Your task to perform on an android device: Find coffee shops on Maps Image 0: 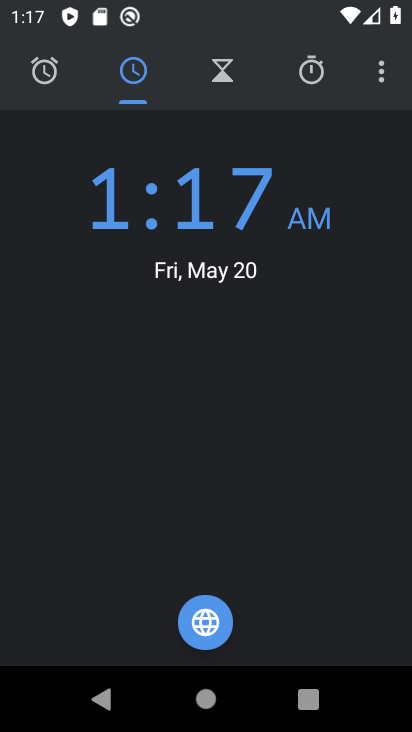
Step 0: press home button
Your task to perform on an android device: Find coffee shops on Maps Image 1: 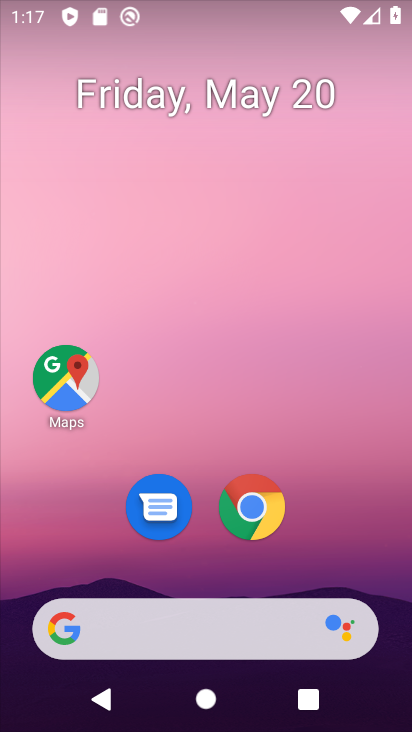
Step 1: drag from (231, 723) to (235, 108)
Your task to perform on an android device: Find coffee shops on Maps Image 2: 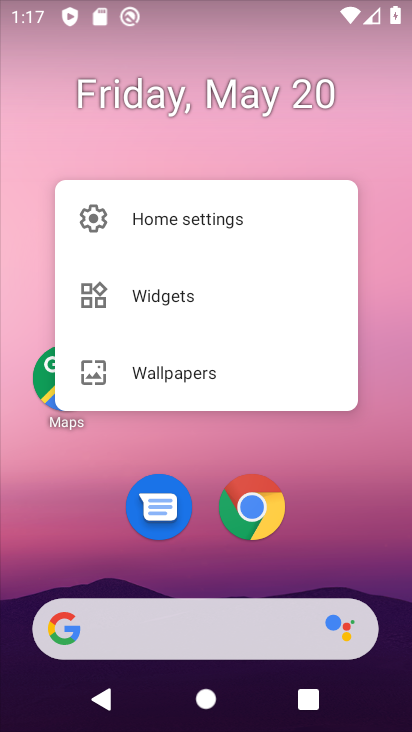
Step 2: click (189, 433)
Your task to perform on an android device: Find coffee shops on Maps Image 3: 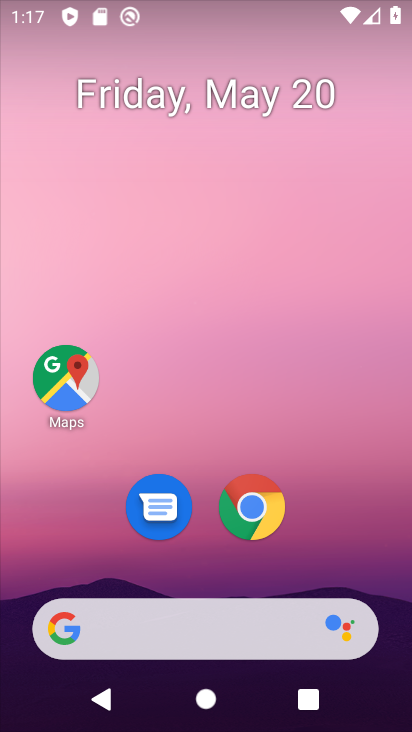
Step 3: drag from (242, 714) to (261, 80)
Your task to perform on an android device: Find coffee shops on Maps Image 4: 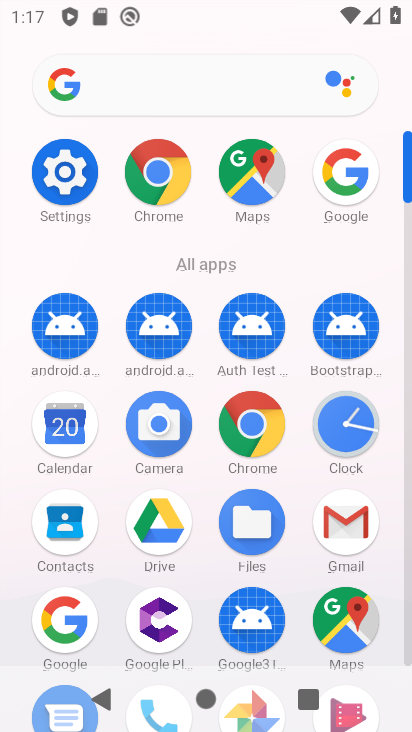
Step 4: click (350, 631)
Your task to perform on an android device: Find coffee shops on Maps Image 5: 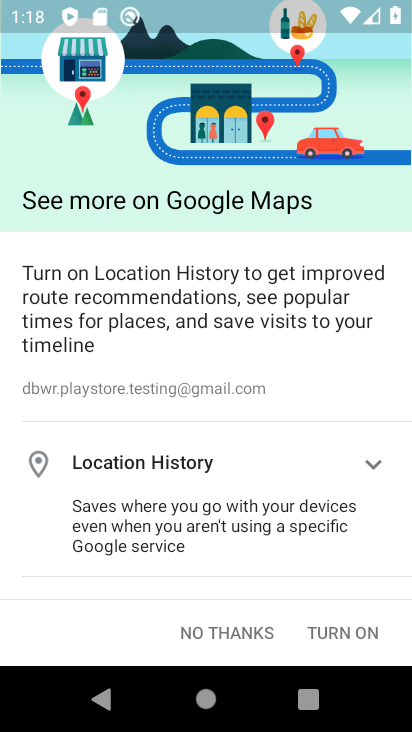
Step 5: click (255, 629)
Your task to perform on an android device: Find coffee shops on Maps Image 6: 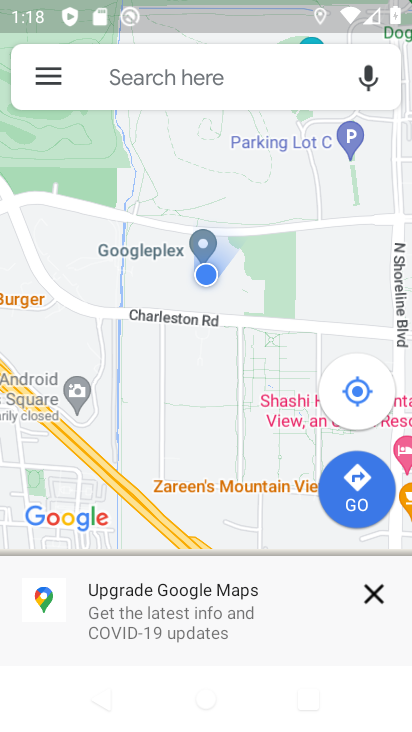
Step 6: click (201, 85)
Your task to perform on an android device: Find coffee shops on Maps Image 7: 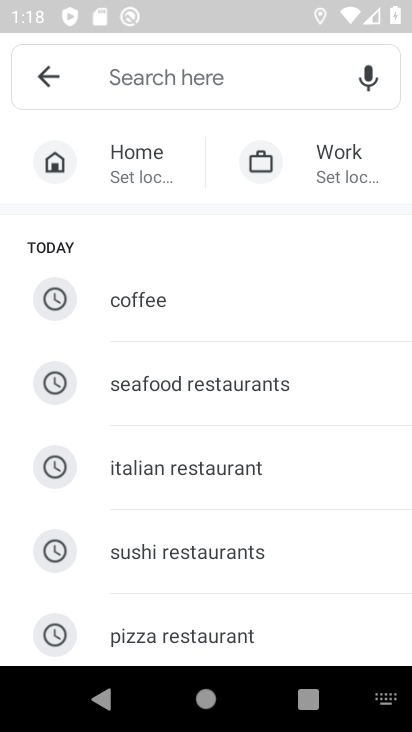
Step 7: type "coffee shops"
Your task to perform on an android device: Find coffee shops on Maps Image 8: 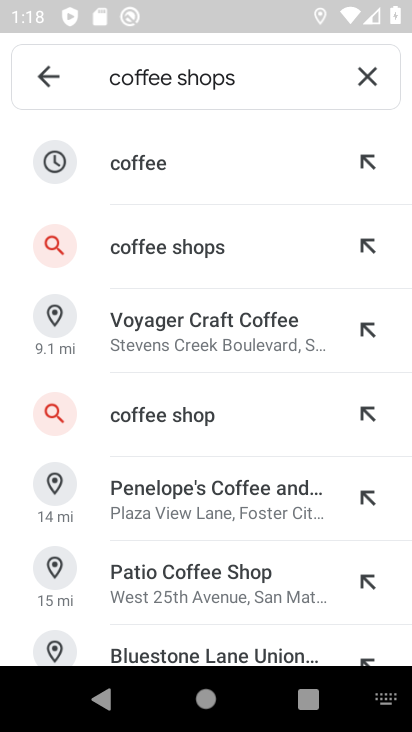
Step 8: click (167, 246)
Your task to perform on an android device: Find coffee shops on Maps Image 9: 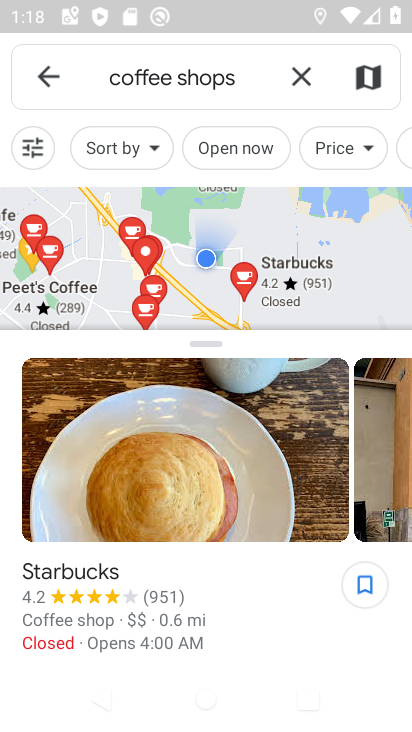
Step 9: task complete